Your task to perform on an android device: create a new album in the google photos Image 0: 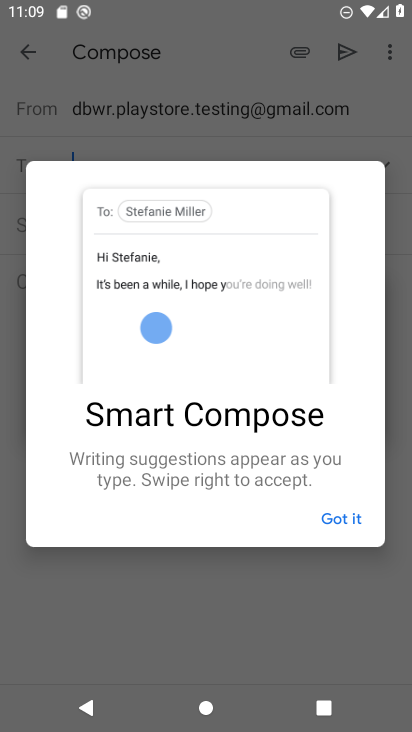
Step 0: press home button
Your task to perform on an android device: create a new album in the google photos Image 1: 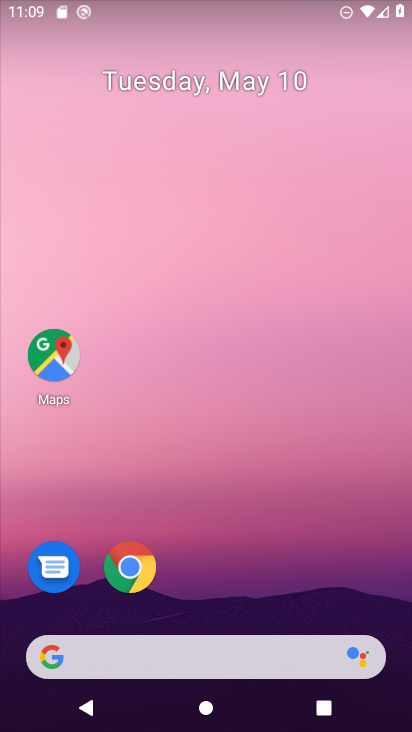
Step 1: drag from (216, 575) to (223, 126)
Your task to perform on an android device: create a new album in the google photos Image 2: 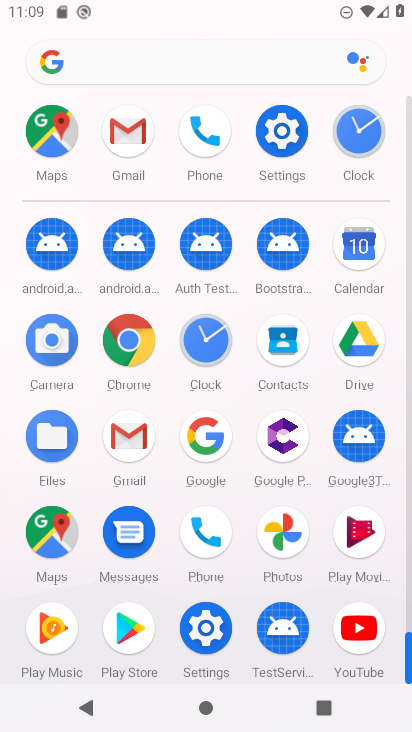
Step 2: click (285, 530)
Your task to perform on an android device: create a new album in the google photos Image 3: 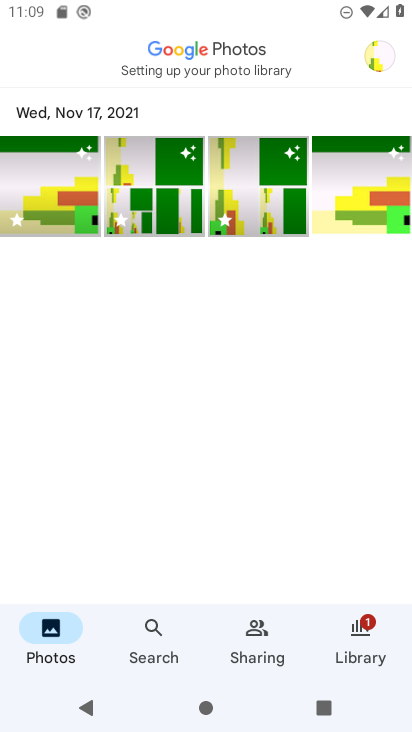
Step 3: click (384, 60)
Your task to perform on an android device: create a new album in the google photos Image 4: 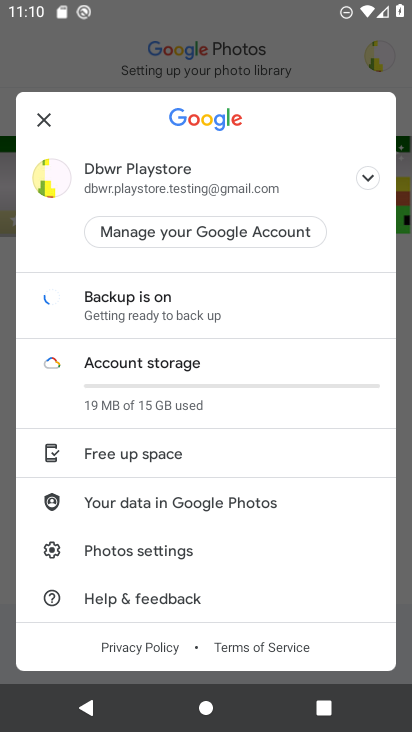
Step 4: click (226, 58)
Your task to perform on an android device: create a new album in the google photos Image 5: 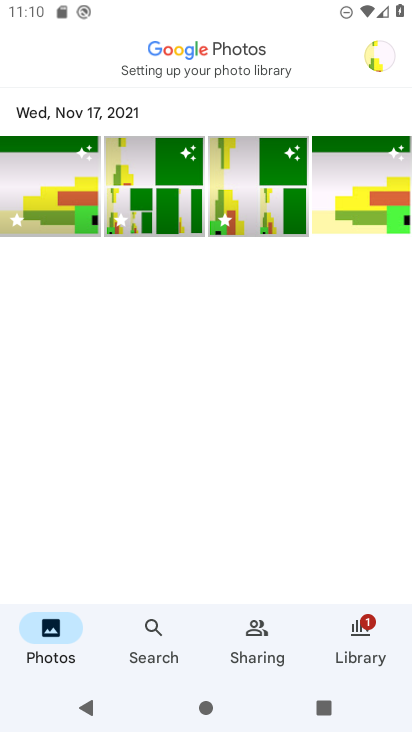
Step 5: click (352, 649)
Your task to perform on an android device: create a new album in the google photos Image 6: 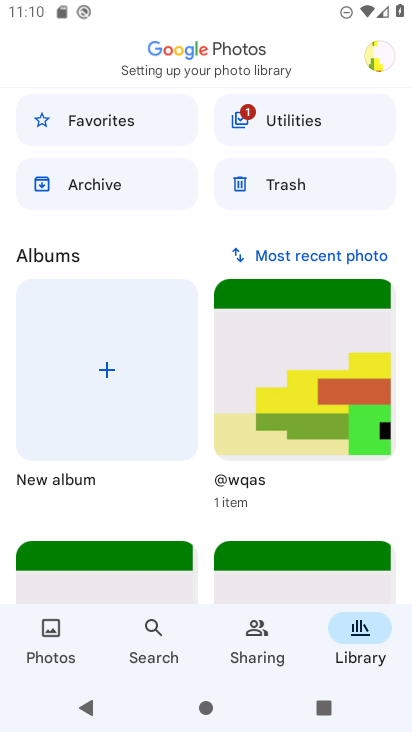
Step 6: click (117, 392)
Your task to perform on an android device: create a new album in the google photos Image 7: 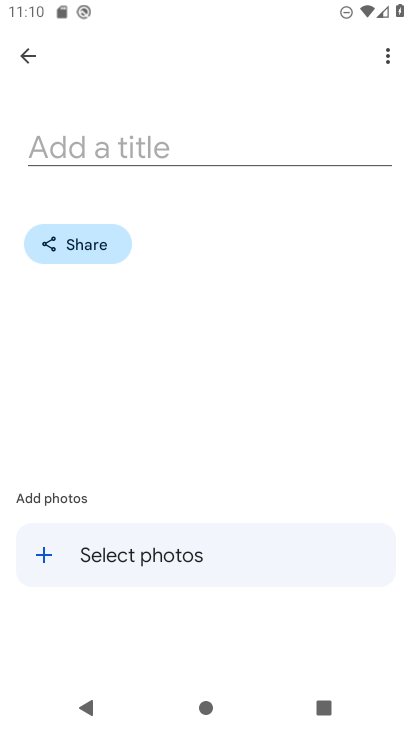
Step 7: click (199, 138)
Your task to perform on an android device: create a new album in the google photos Image 8: 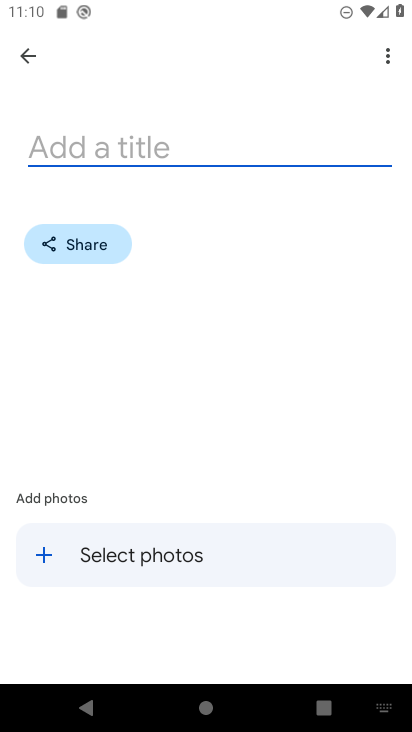
Step 8: type "j"
Your task to perform on an android device: create a new album in the google photos Image 9: 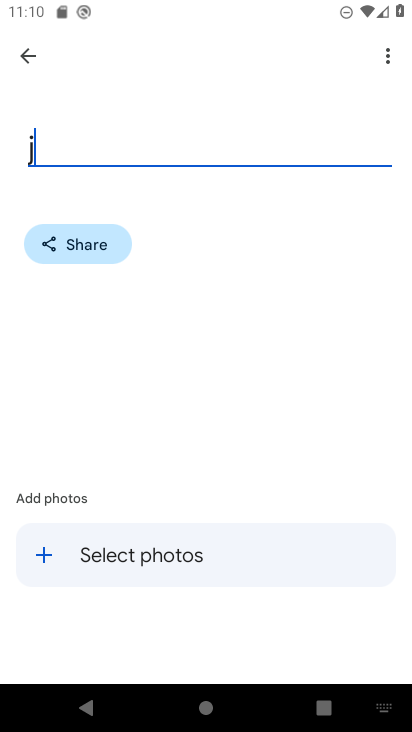
Step 9: click (77, 559)
Your task to perform on an android device: create a new album in the google photos Image 10: 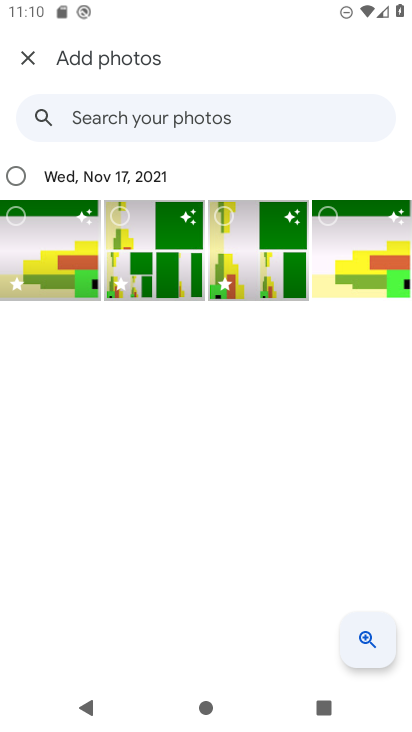
Step 10: click (22, 233)
Your task to perform on an android device: create a new album in the google photos Image 11: 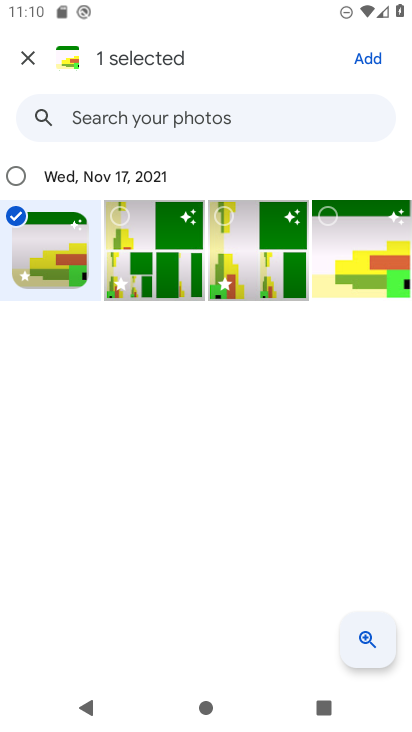
Step 11: click (380, 59)
Your task to perform on an android device: create a new album in the google photos Image 12: 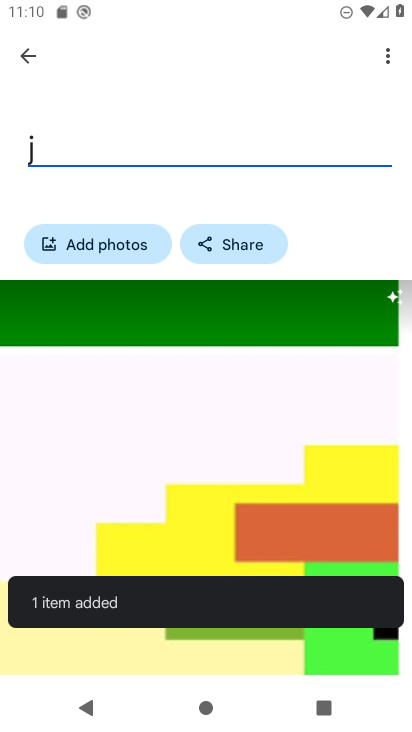
Step 12: task complete